Your task to perform on an android device: turn off priority inbox in the gmail app Image 0: 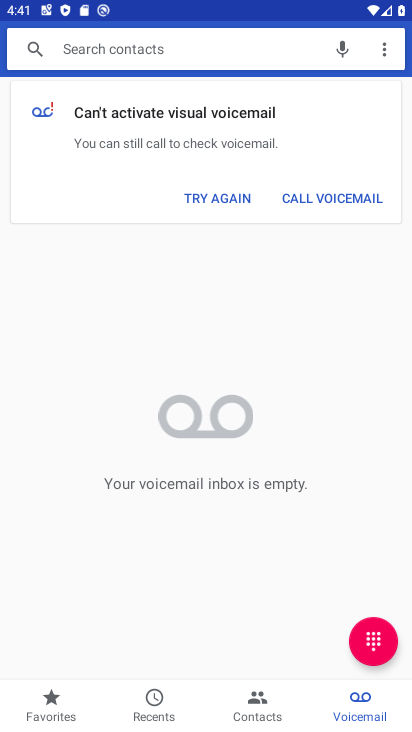
Step 0: press home button
Your task to perform on an android device: turn off priority inbox in the gmail app Image 1: 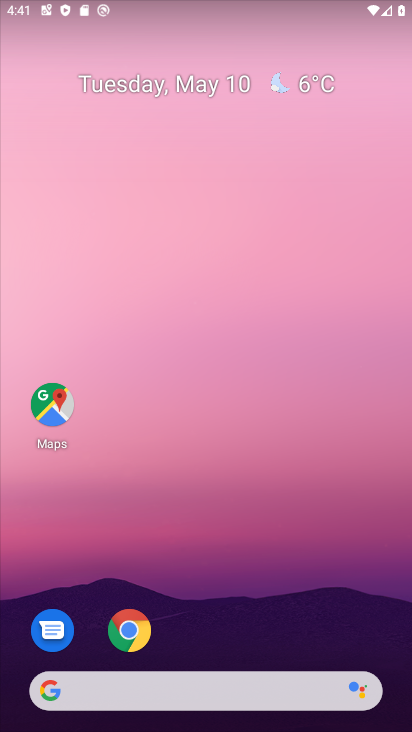
Step 1: drag from (304, 609) to (234, 187)
Your task to perform on an android device: turn off priority inbox in the gmail app Image 2: 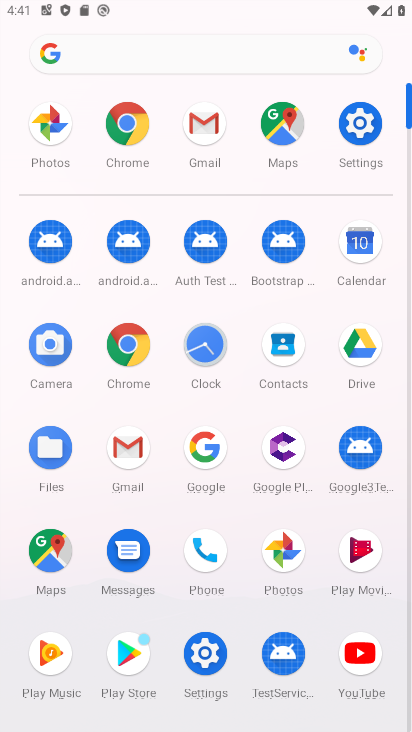
Step 2: click (216, 133)
Your task to perform on an android device: turn off priority inbox in the gmail app Image 3: 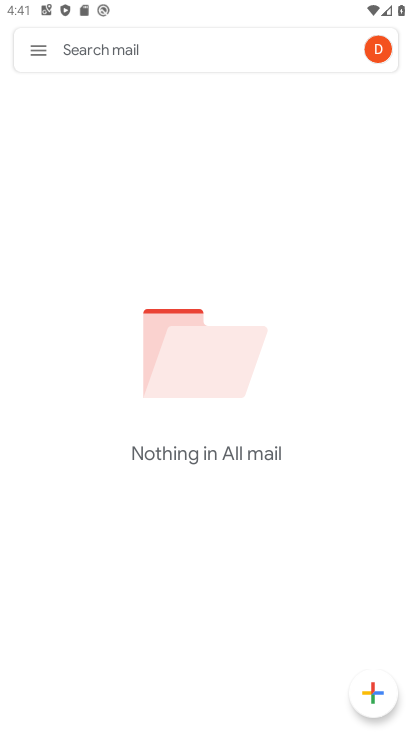
Step 3: click (44, 57)
Your task to perform on an android device: turn off priority inbox in the gmail app Image 4: 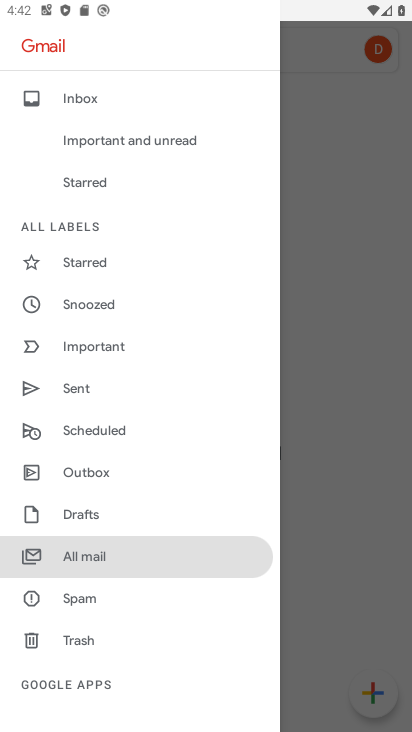
Step 4: drag from (67, 704) to (198, 368)
Your task to perform on an android device: turn off priority inbox in the gmail app Image 5: 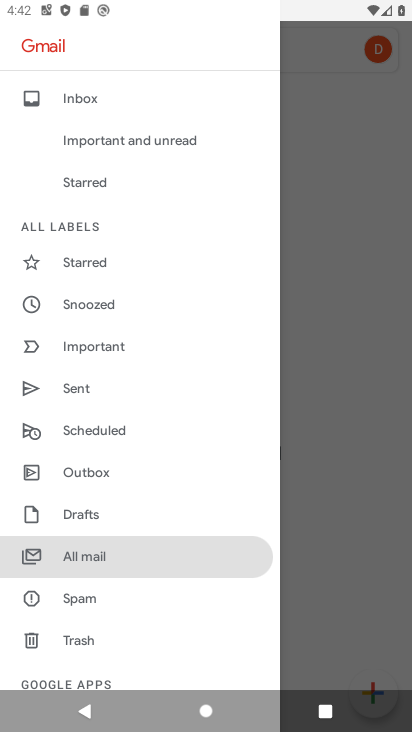
Step 5: drag from (94, 630) to (191, 249)
Your task to perform on an android device: turn off priority inbox in the gmail app Image 6: 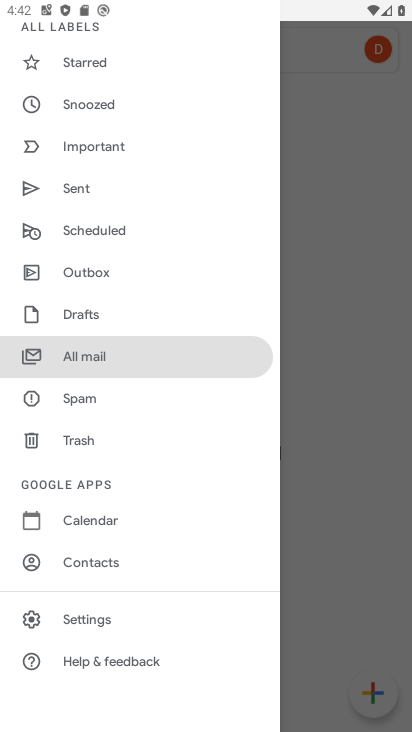
Step 6: click (71, 621)
Your task to perform on an android device: turn off priority inbox in the gmail app Image 7: 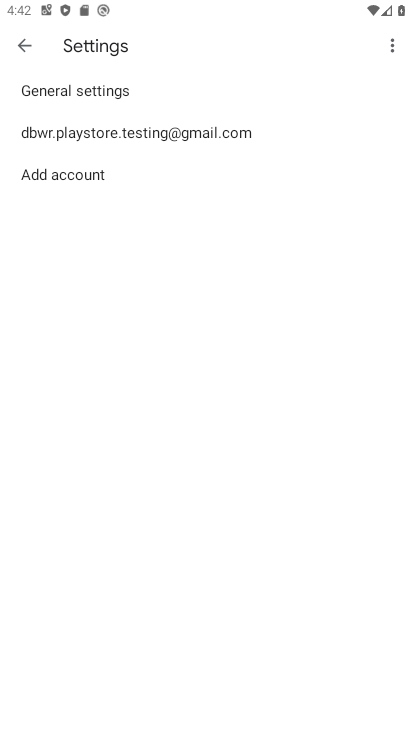
Step 7: click (200, 136)
Your task to perform on an android device: turn off priority inbox in the gmail app Image 8: 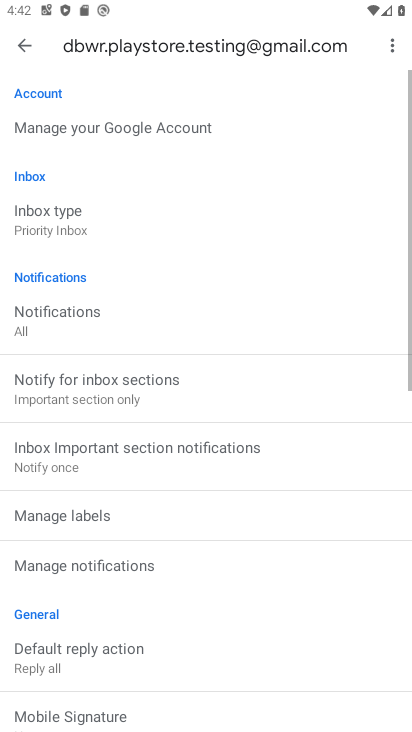
Step 8: click (51, 227)
Your task to perform on an android device: turn off priority inbox in the gmail app Image 9: 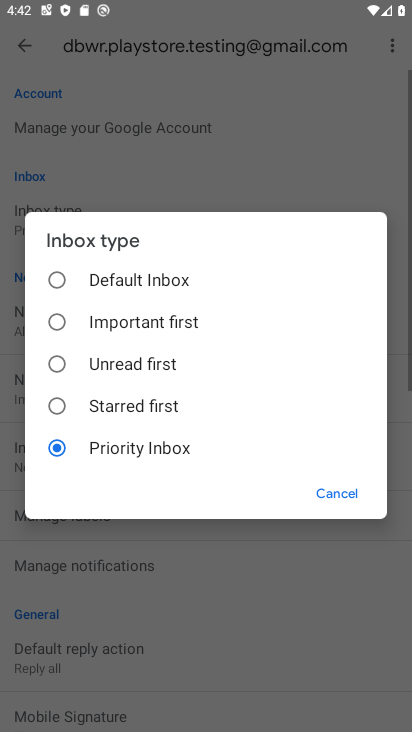
Step 9: task complete